Your task to perform on an android device: Open the calendar app, open the side menu, and click the "Day" option Image 0: 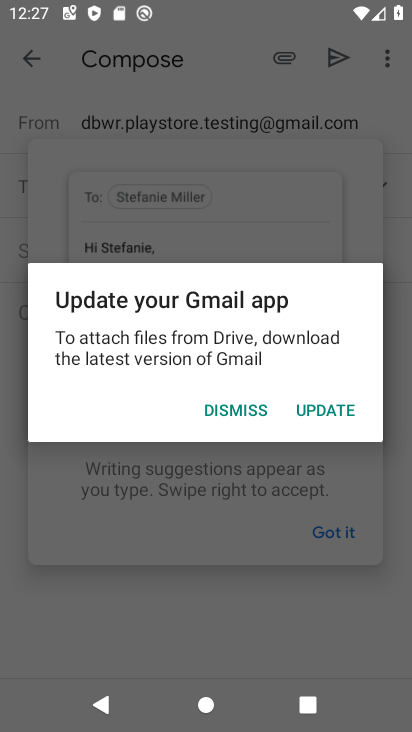
Step 0: press home button
Your task to perform on an android device: Open the calendar app, open the side menu, and click the "Day" option Image 1: 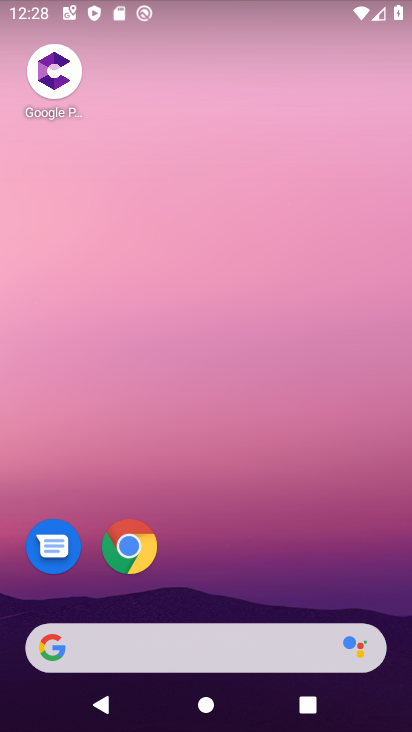
Step 1: drag from (263, 532) to (274, 81)
Your task to perform on an android device: Open the calendar app, open the side menu, and click the "Day" option Image 2: 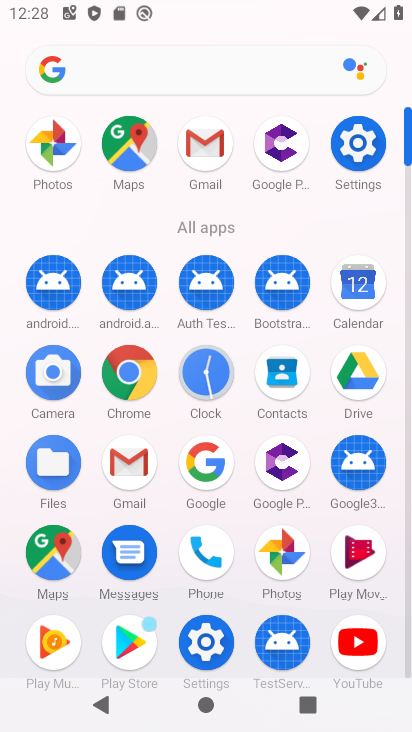
Step 2: click (373, 157)
Your task to perform on an android device: Open the calendar app, open the side menu, and click the "Day" option Image 3: 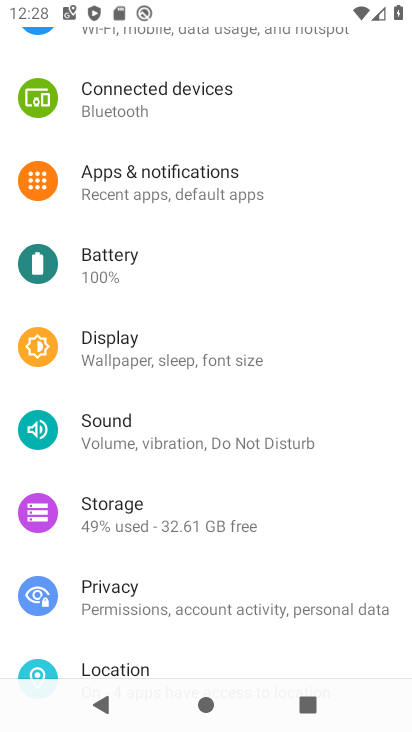
Step 3: press home button
Your task to perform on an android device: Open the calendar app, open the side menu, and click the "Day" option Image 4: 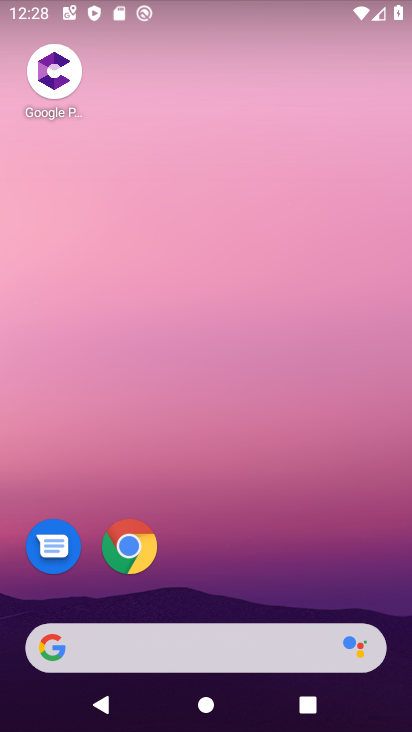
Step 4: drag from (231, 534) to (265, 237)
Your task to perform on an android device: Open the calendar app, open the side menu, and click the "Day" option Image 5: 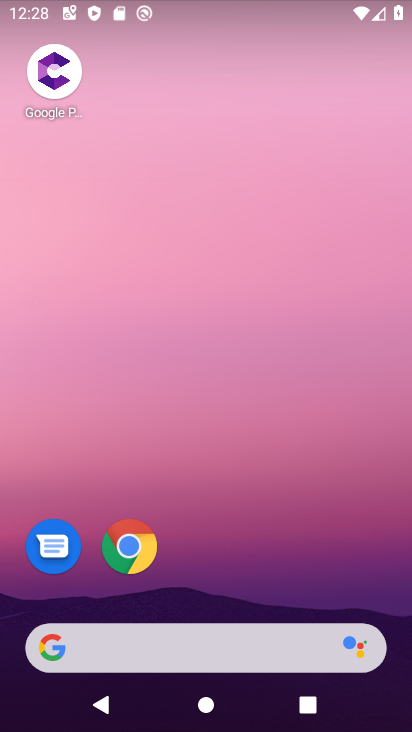
Step 5: drag from (255, 553) to (255, 183)
Your task to perform on an android device: Open the calendar app, open the side menu, and click the "Day" option Image 6: 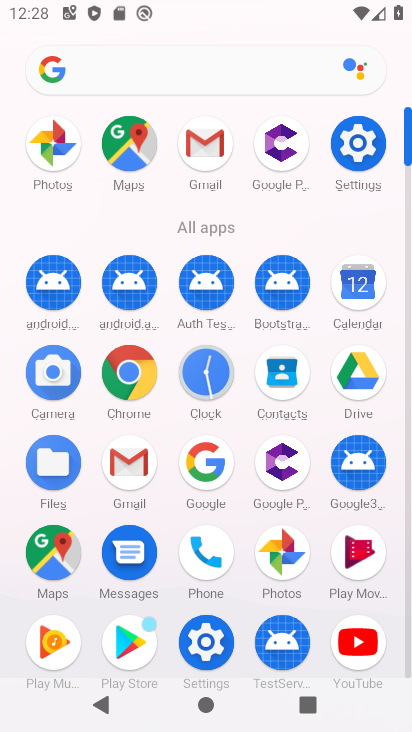
Step 6: click (365, 292)
Your task to perform on an android device: Open the calendar app, open the side menu, and click the "Day" option Image 7: 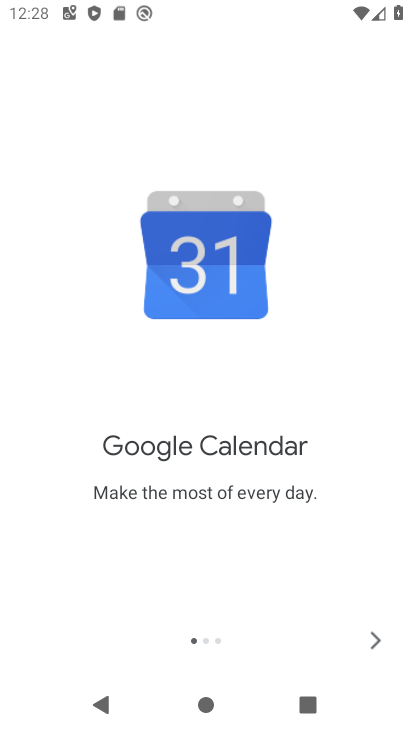
Step 7: click (367, 641)
Your task to perform on an android device: Open the calendar app, open the side menu, and click the "Day" option Image 8: 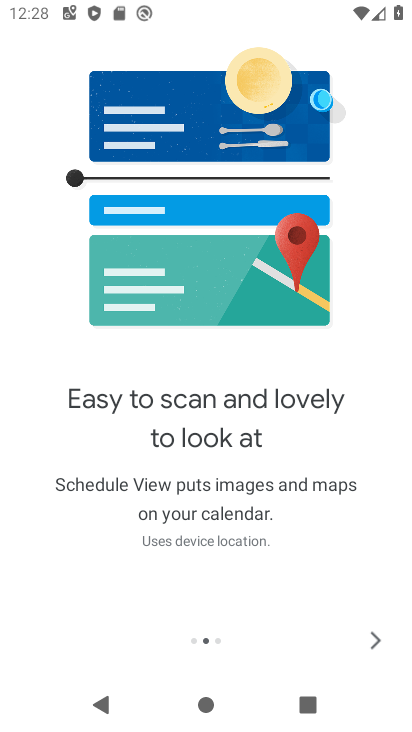
Step 8: click (367, 641)
Your task to perform on an android device: Open the calendar app, open the side menu, and click the "Day" option Image 9: 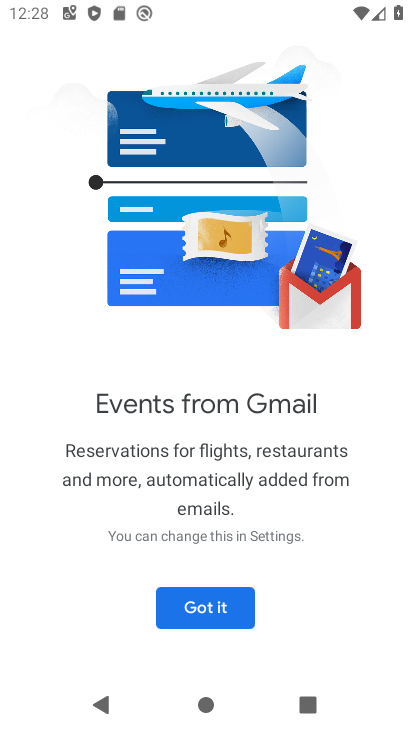
Step 9: click (239, 608)
Your task to perform on an android device: Open the calendar app, open the side menu, and click the "Day" option Image 10: 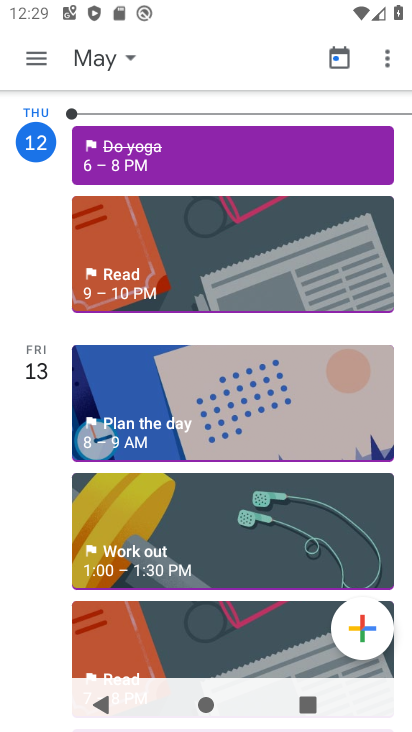
Step 10: click (40, 64)
Your task to perform on an android device: Open the calendar app, open the side menu, and click the "Day" option Image 11: 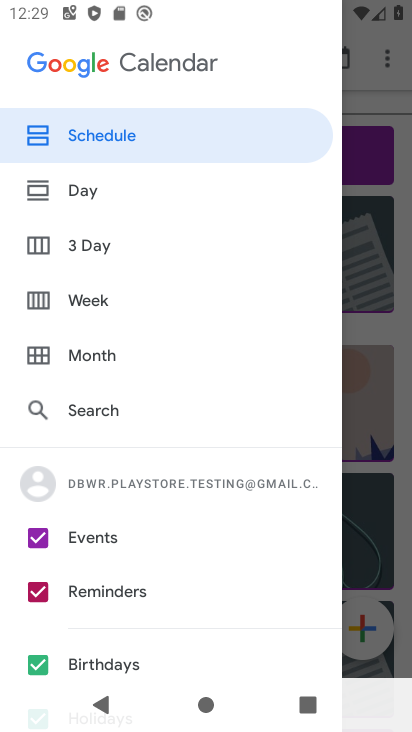
Step 11: click (124, 189)
Your task to perform on an android device: Open the calendar app, open the side menu, and click the "Day" option Image 12: 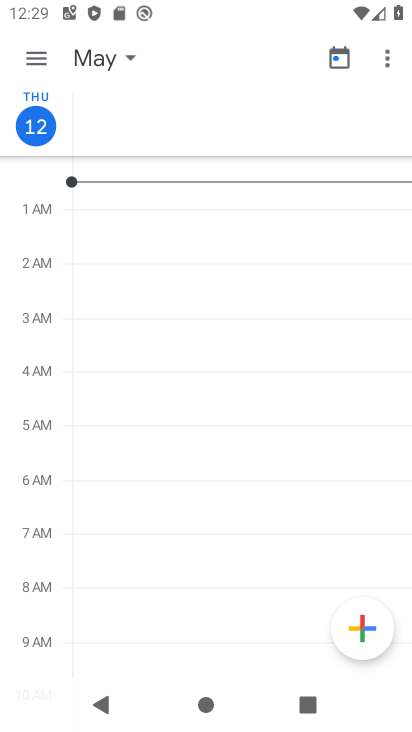
Step 12: task complete